Your task to perform on an android device: Open internet settings Image 0: 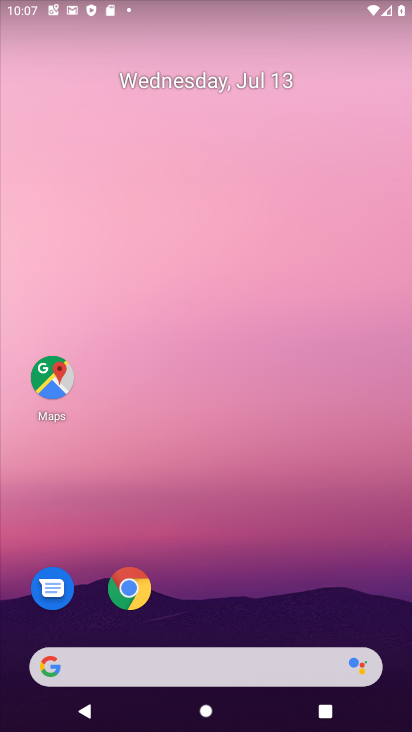
Step 0: drag from (202, 627) to (265, 7)
Your task to perform on an android device: Open internet settings Image 1: 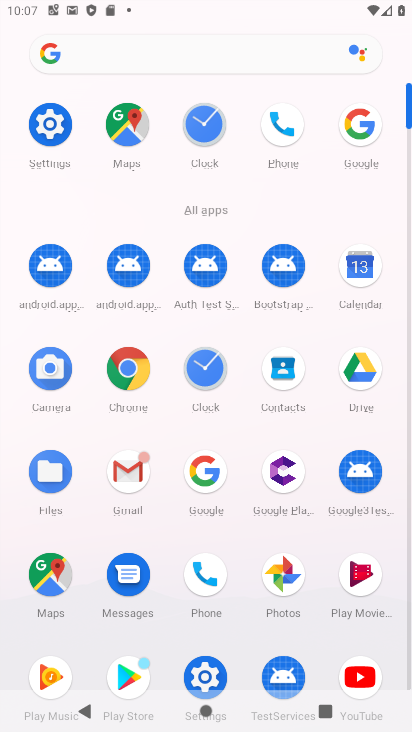
Step 1: click (46, 138)
Your task to perform on an android device: Open internet settings Image 2: 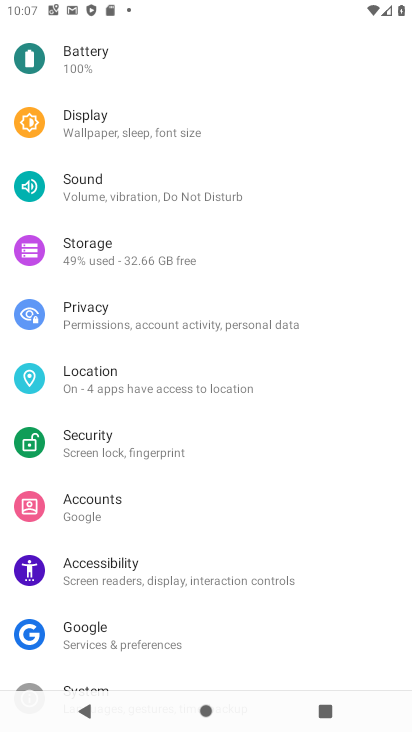
Step 2: drag from (149, 229) to (167, 609)
Your task to perform on an android device: Open internet settings Image 3: 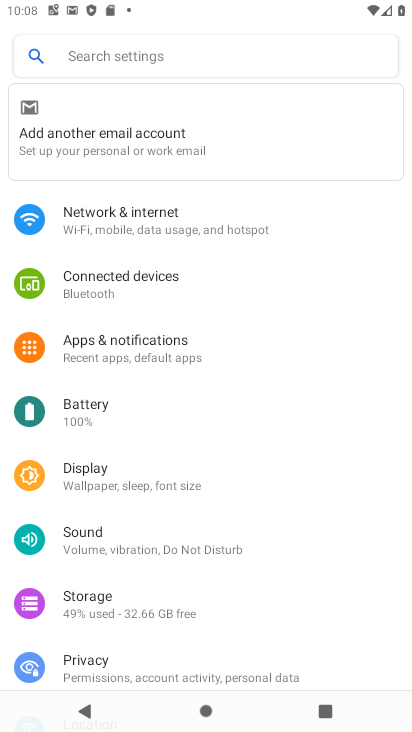
Step 3: click (149, 229)
Your task to perform on an android device: Open internet settings Image 4: 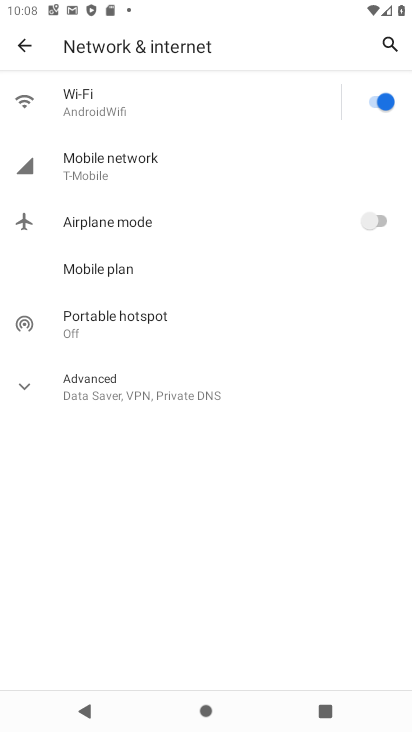
Step 4: click (119, 179)
Your task to perform on an android device: Open internet settings Image 5: 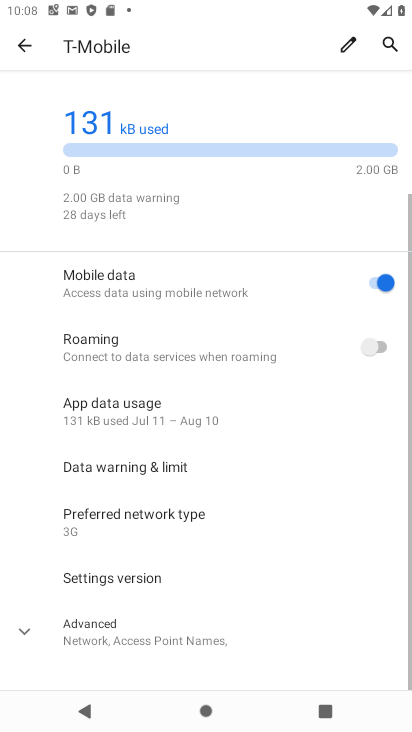
Step 5: task complete